Your task to perform on an android device: uninstall "PlayWell" Image 0: 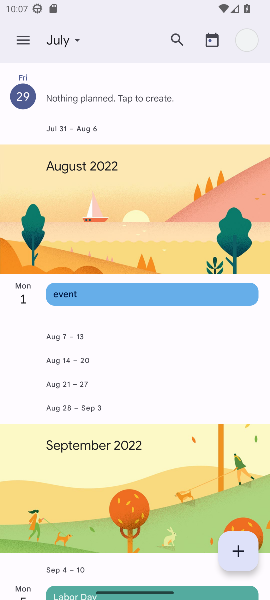
Step 0: press home button
Your task to perform on an android device: uninstall "PlayWell" Image 1: 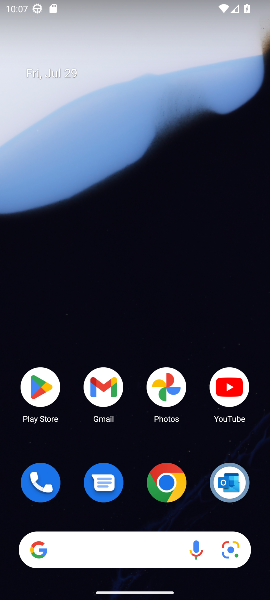
Step 1: click (43, 385)
Your task to perform on an android device: uninstall "PlayWell" Image 2: 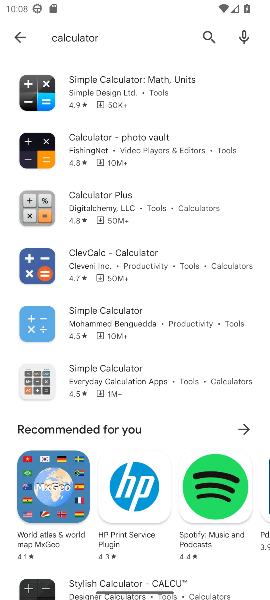
Step 2: click (207, 34)
Your task to perform on an android device: uninstall "PlayWell" Image 3: 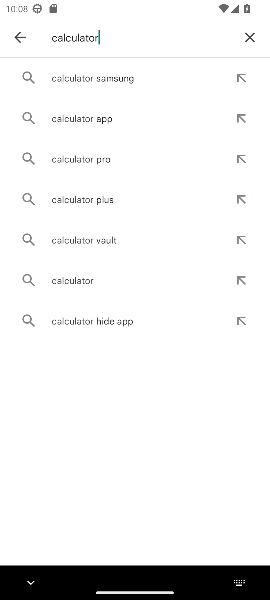
Step 3: click (250, 35)
Your task to perform on an android device: uninstall "PlayWell" Image 4: 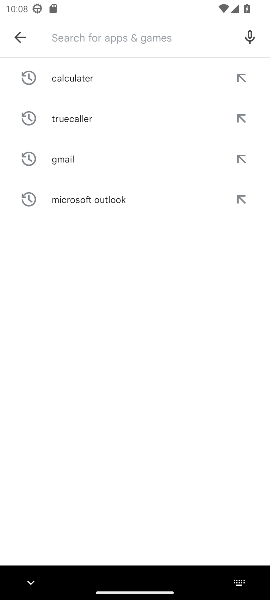
Step 4: type "PlayWell"
Your task to perform on an android device: uninstall "PlayWell" Image 5: 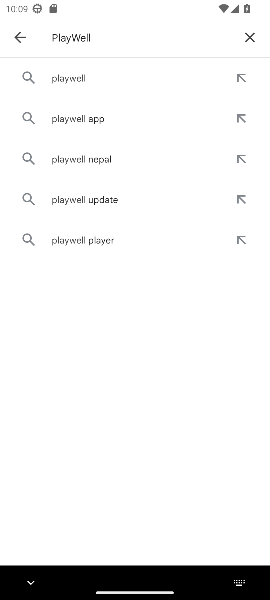
Step 5: click (73, 76)
Your task to perform on an android device: uninstall "PlayWell" Image 6: 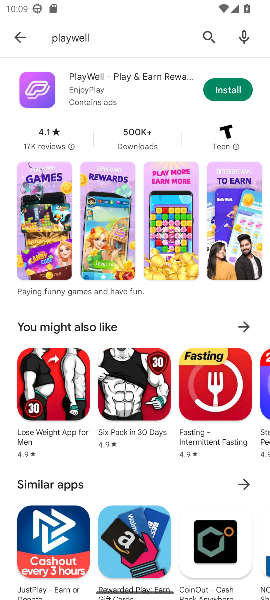
Step 6: task complete